Your task to perform on an android device: turn on data saver in the chrome app Image 0: 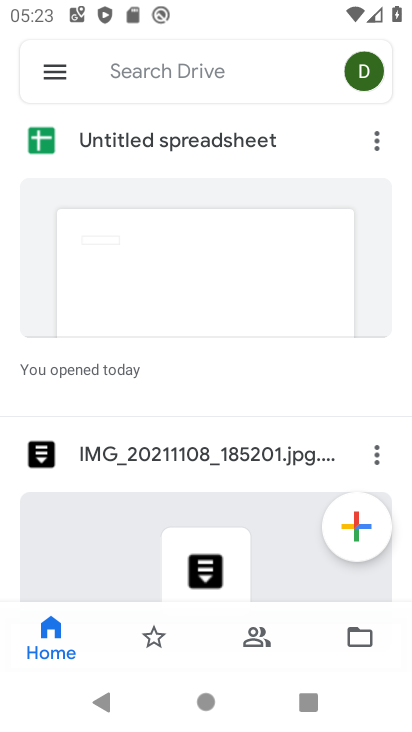
Step 0: press home button
Your task to perform on an android device: turn on data saver in the chrome app Image 1: 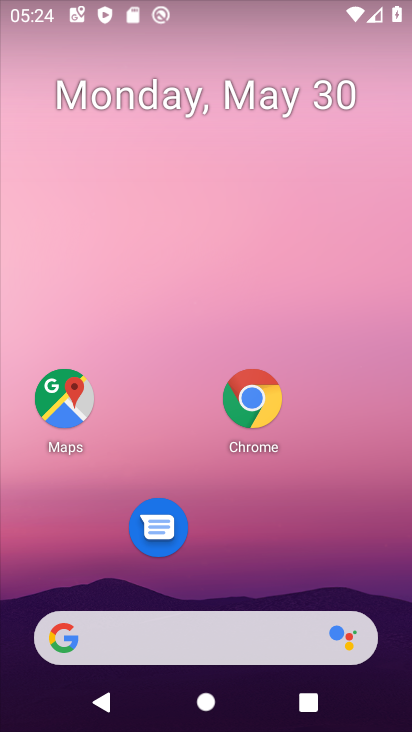
Step 1: drag from (240, 667) to (234, 51)
Your task to perform on an android device: turn on data saver in the chrome app Image 2: 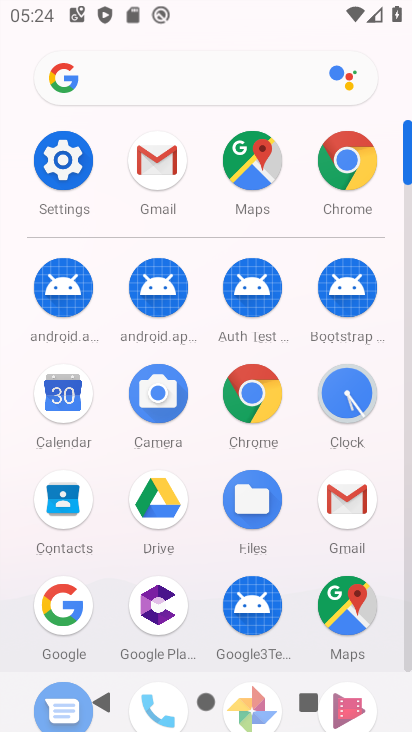
Step 2: click (247, 388)
Your task to perform on an android device: turn on data saver in the chrome app Image 3: 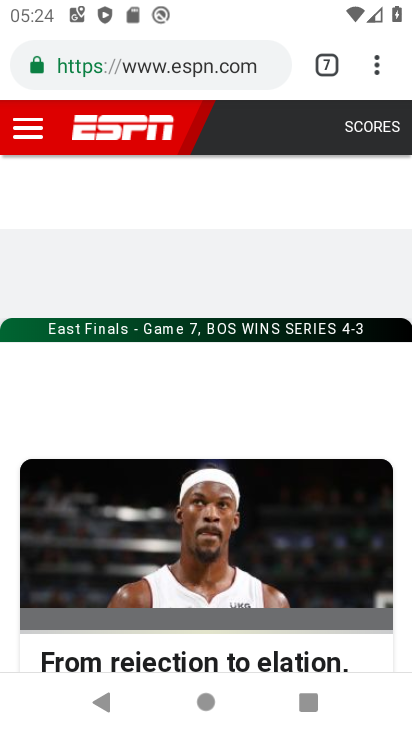
Step 3: click (377, 70)
Your task to perform on an android device: turn on data saver in the chrome app Image 4: 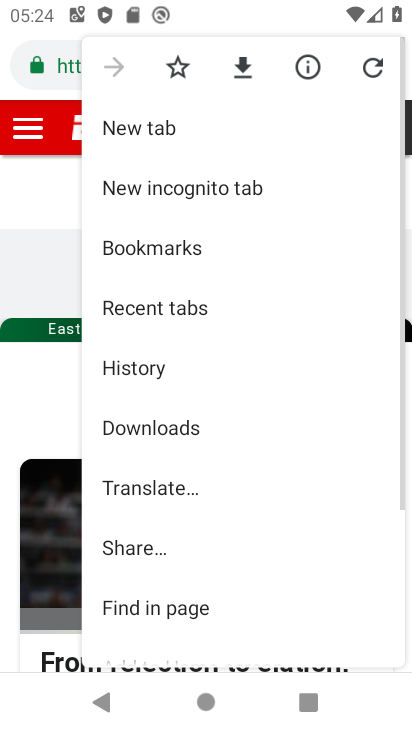
Step 4: drag from (148, 586) to (151, 190)
Your task to perform on an android device: turn on data saver in the chrome app Image 5: 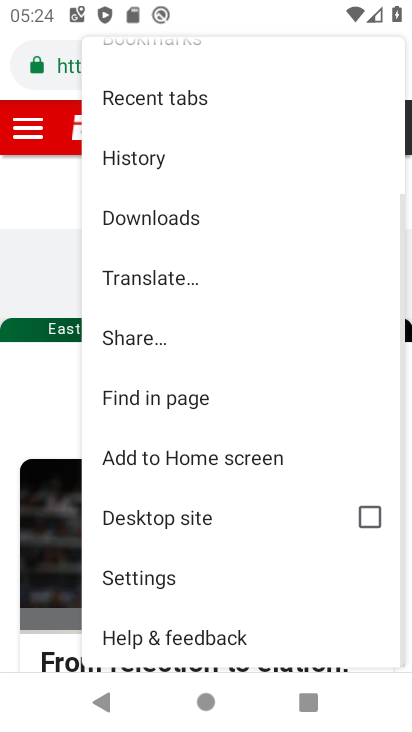
Step 5: click (141, 573)
Your task to perform on an android device: turn on data saver in the chrome app Image 6: 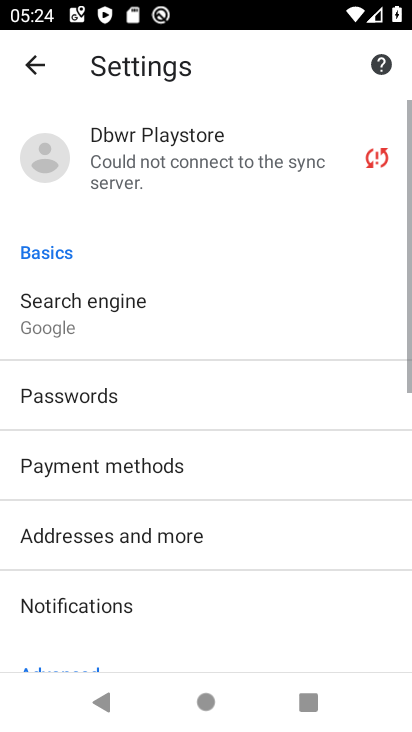
Step 6: drag from (165, 632) to (176, 476)
Your task to perform on an android device: turn on data saver in the chrome app Image 7: 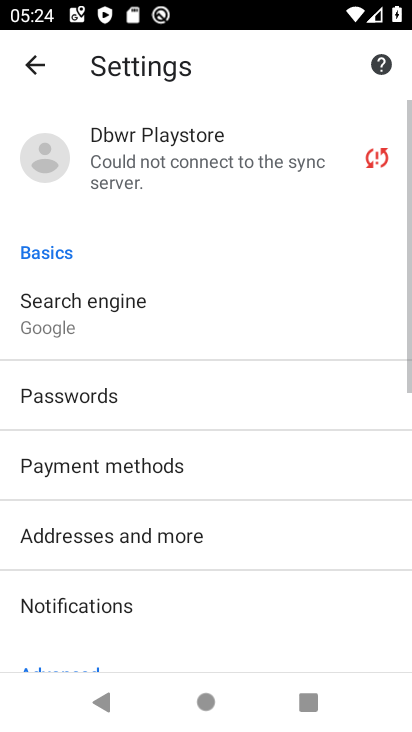
Step 7: drag from (189, 315) to (191, 262)
Your task to perform on an android device: turn on data saver in the chrome app Image 8: 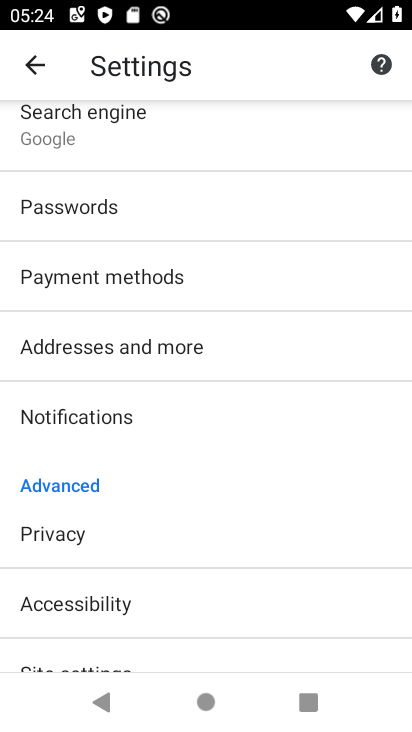
Step 8: drag from (110, 635) to (123, 268)
Your task to perform on an android device: turn on data saver in the chrome app Image 9: 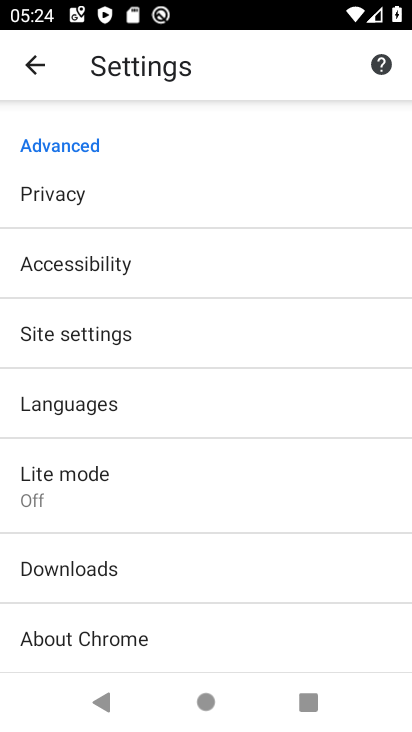
Step 9: click (58, 469)
Your task to perform on an android device: turn on data saver in the chrome app Image 10: 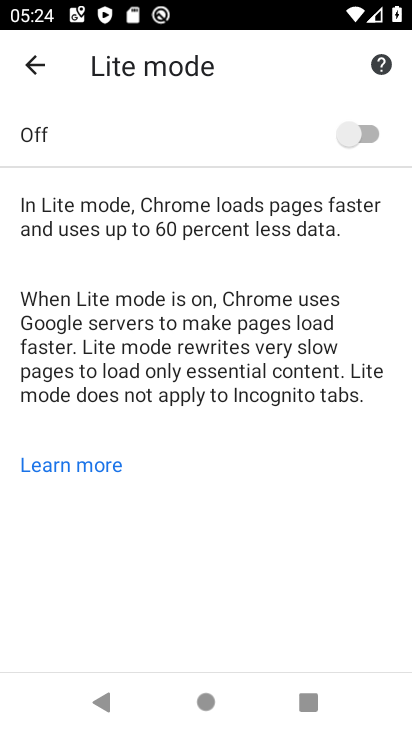
Step 10: click (369, 130)
Your task to perform on an android device: turn on data saver in the chrome app Image 11: 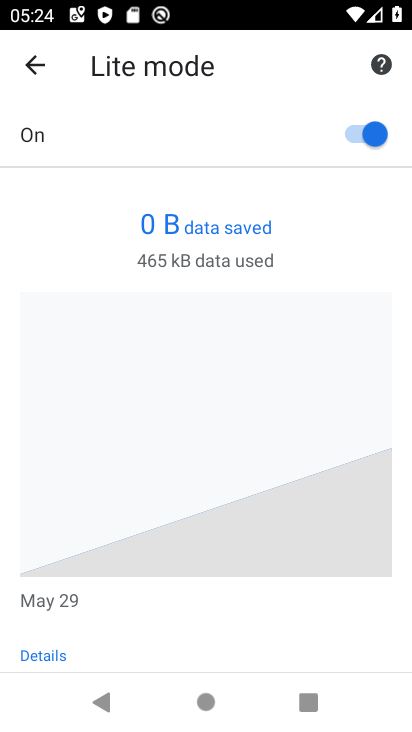
Step 11: task complete